Your task to perform on an android device: open chrome and create a bookmark for the current page Image 0: 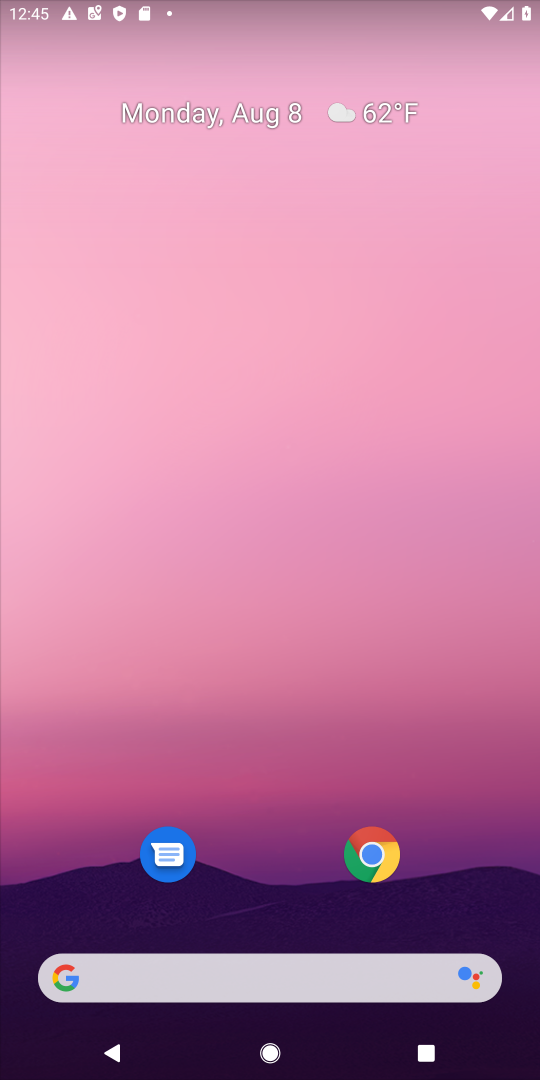
Step 0: press home button
Your task to perform on an android device: open chrome and create a bookmark for the current page Image 1: 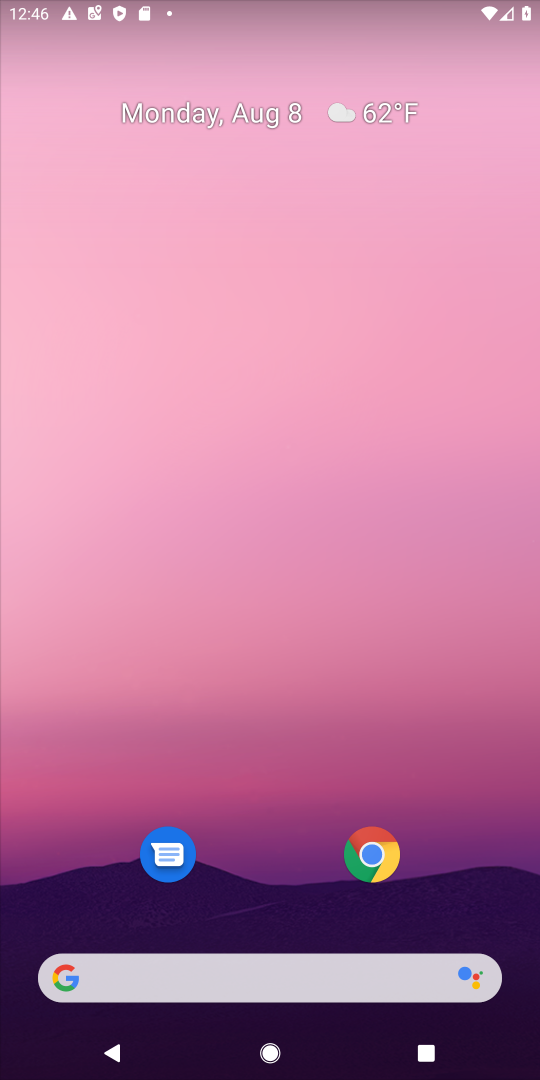
Step 1: click (369, 841)
Your task to perform on an android device: open chrome and create a bookmark for the current page Image 2: 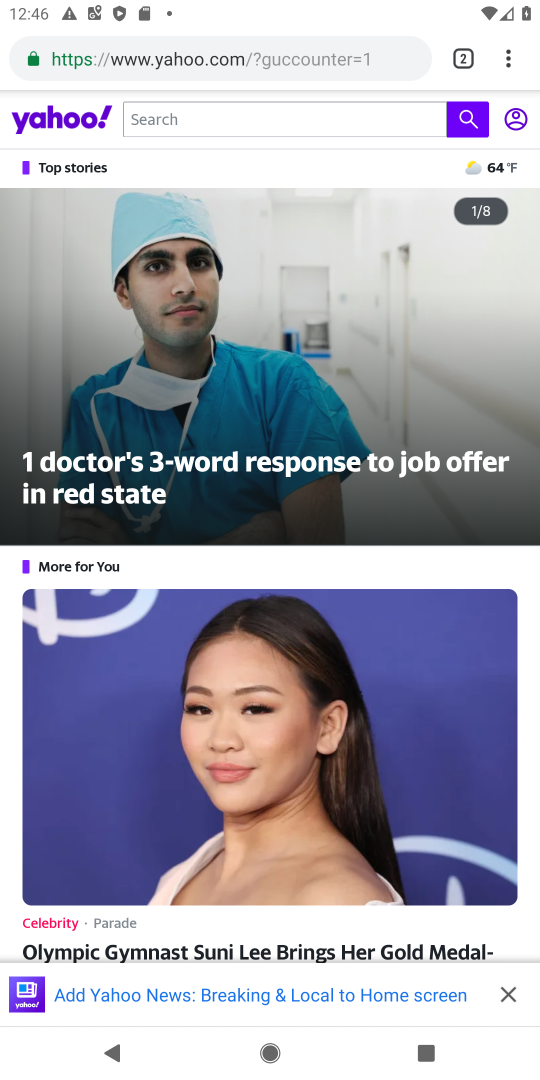
Step 2: drag from (513, 63) to (250, 86)
Your task to perform on an android device: open chrome and create a bookmark for the current page Image 3: 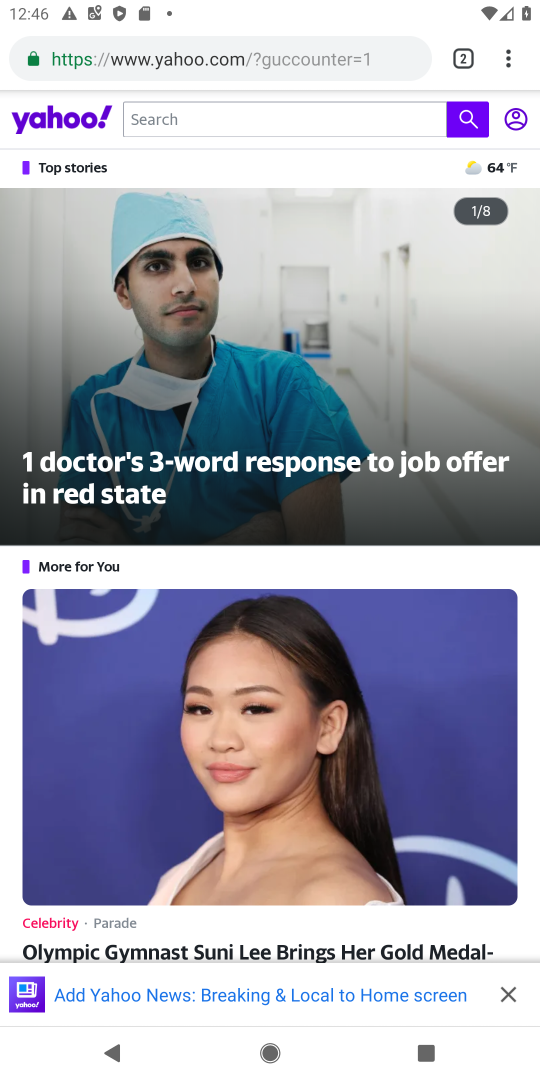
Step 3: click (513, 56)
Your task to perform on an android device: open chrome and create a bookmark for the current page Image 4: 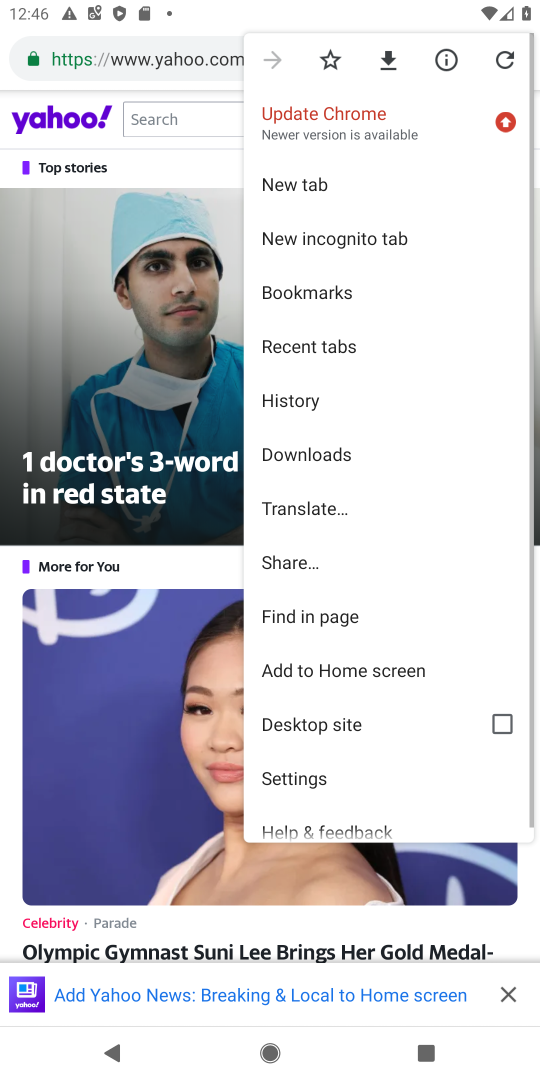
Step 4: click (347, 58)
Your task to perform on an android device: open chrome and create a bookmark for the current page Image 5: 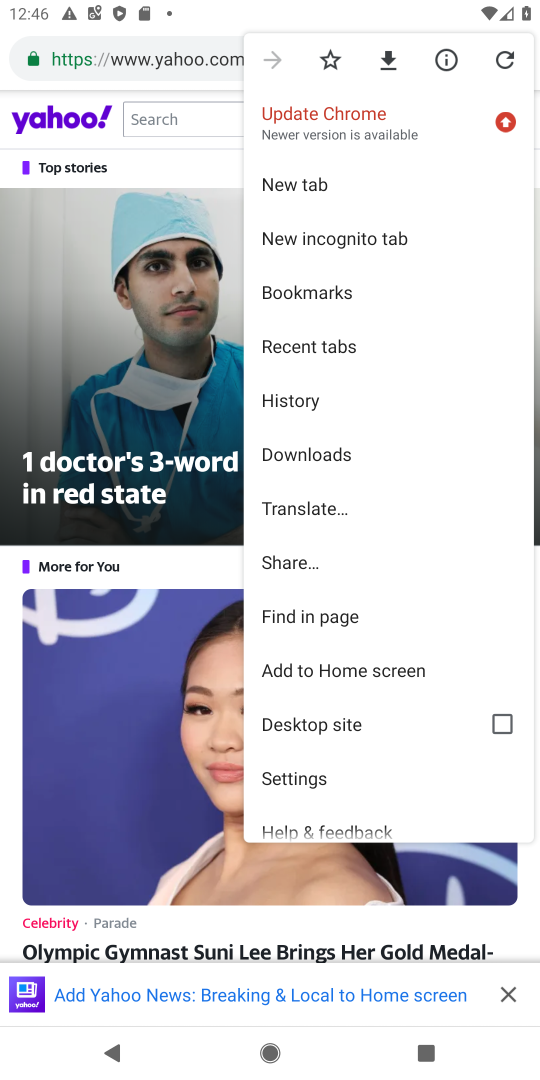
Step 5: click (333, 58)
Your task to perform on an android device: open chrome and create a bookmark for the current page Image 6: 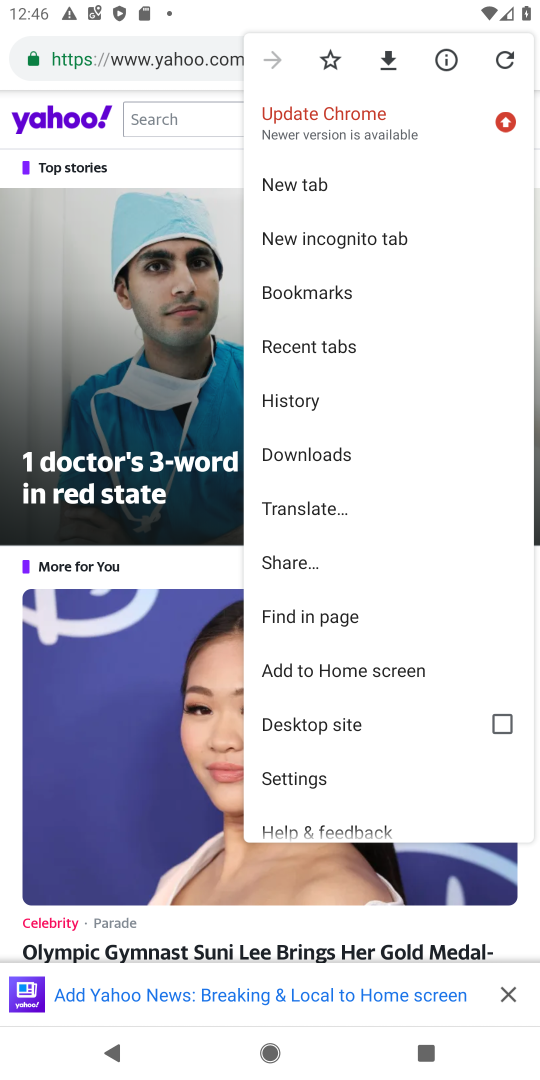
Step 6: click (207, 22)
Your task to perform on an android device: open chrome and create a bookmark for the current page Image 7: 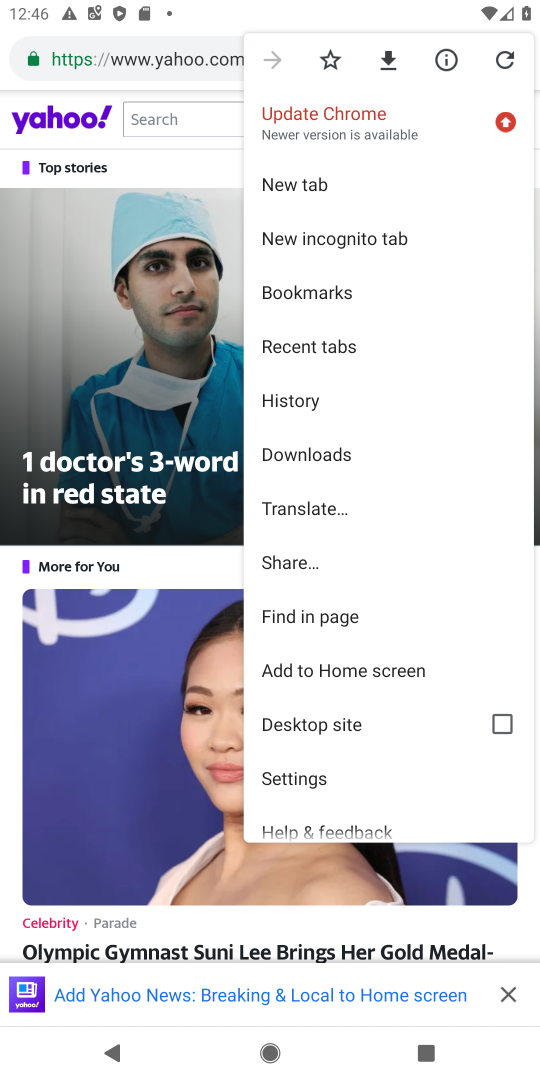
Step 7: task complete